Your task to perform on an android device: Empty the shopping cart on target.com. Add lenovo thinkpad to the cart on target.com, then select checkout. Image 0: 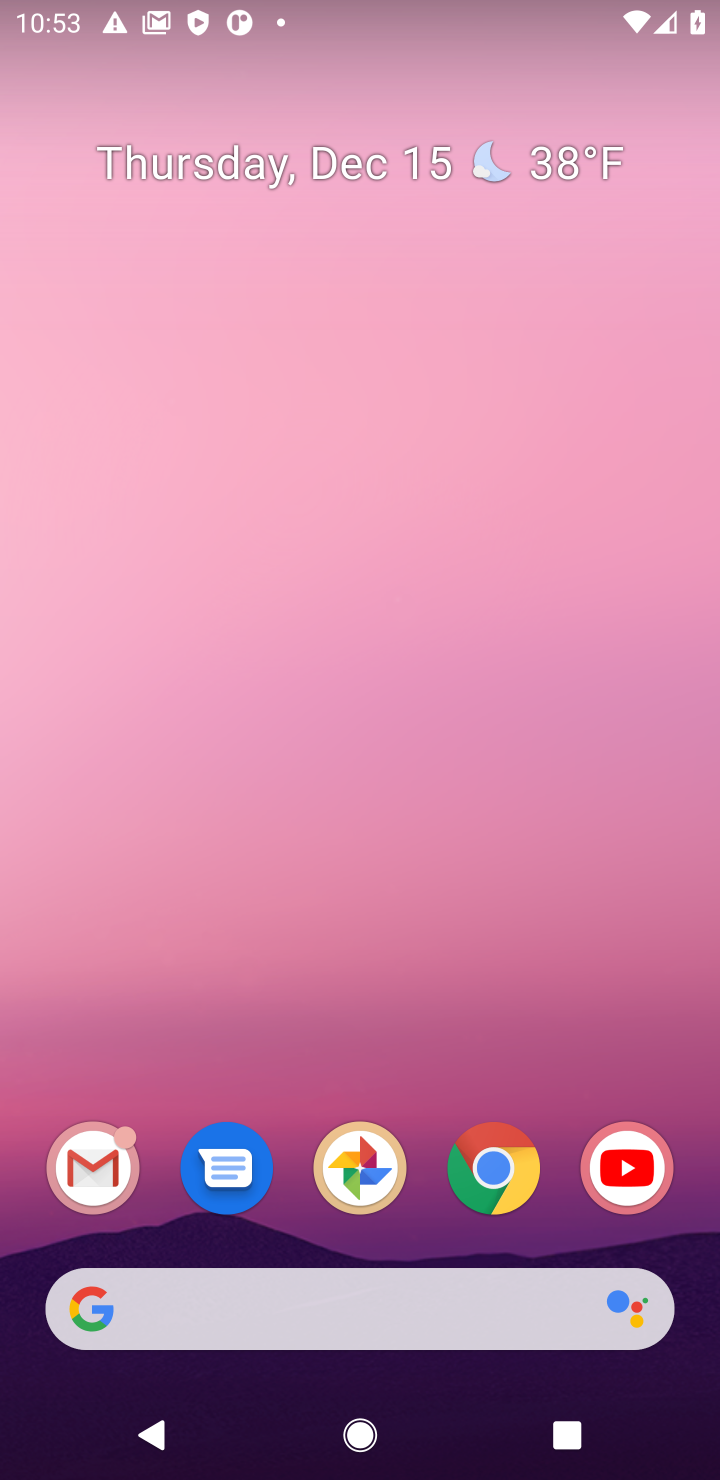
Step 0: click (484, 1175)
Your task to perform on an android device: Empty the shopping cart on target.com. Add lenovo thinkpad to the cart on target.com, then select checkout. Image 1: 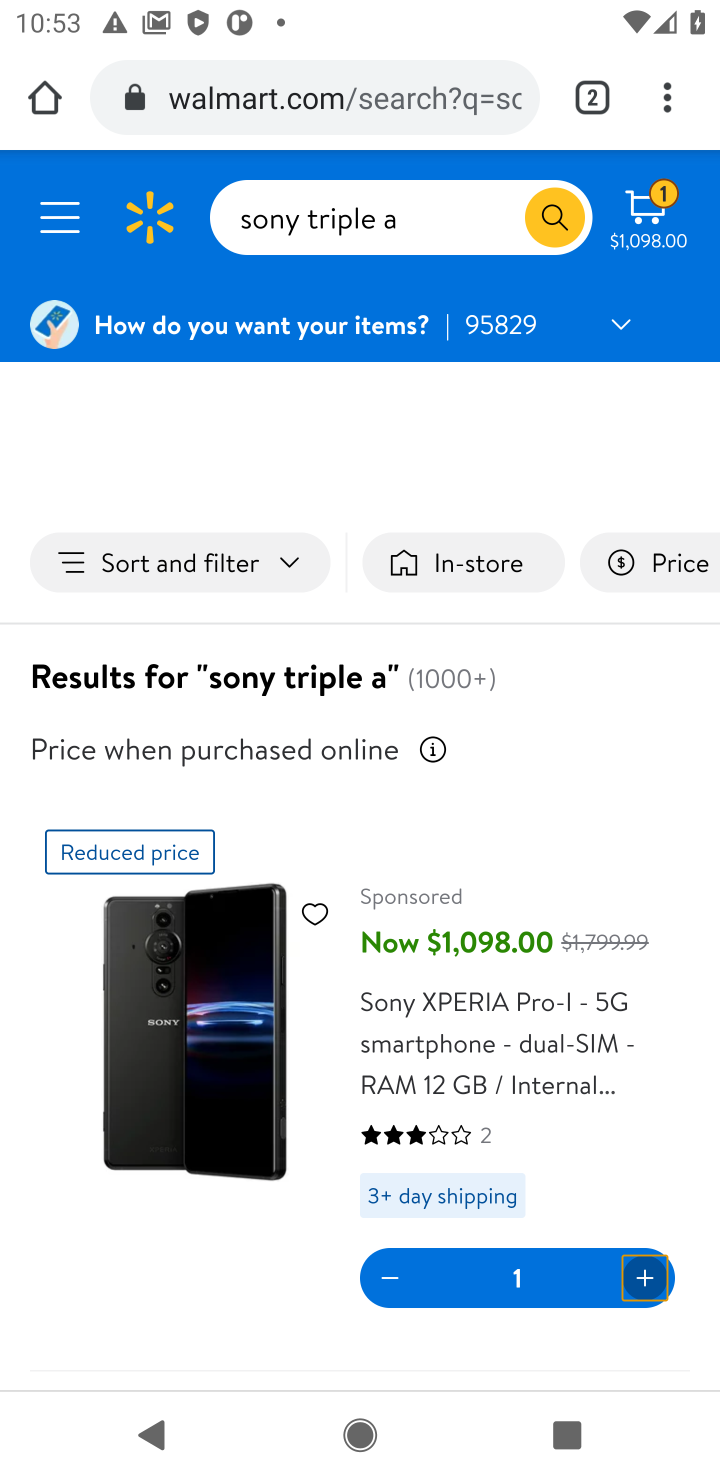
Step 1: click (364, 89)
Your task to perform on an android device: Empty the shopping cart on target.com. Add lenovo thinkpad to the cart on target.com, then select checkout. Image 2: 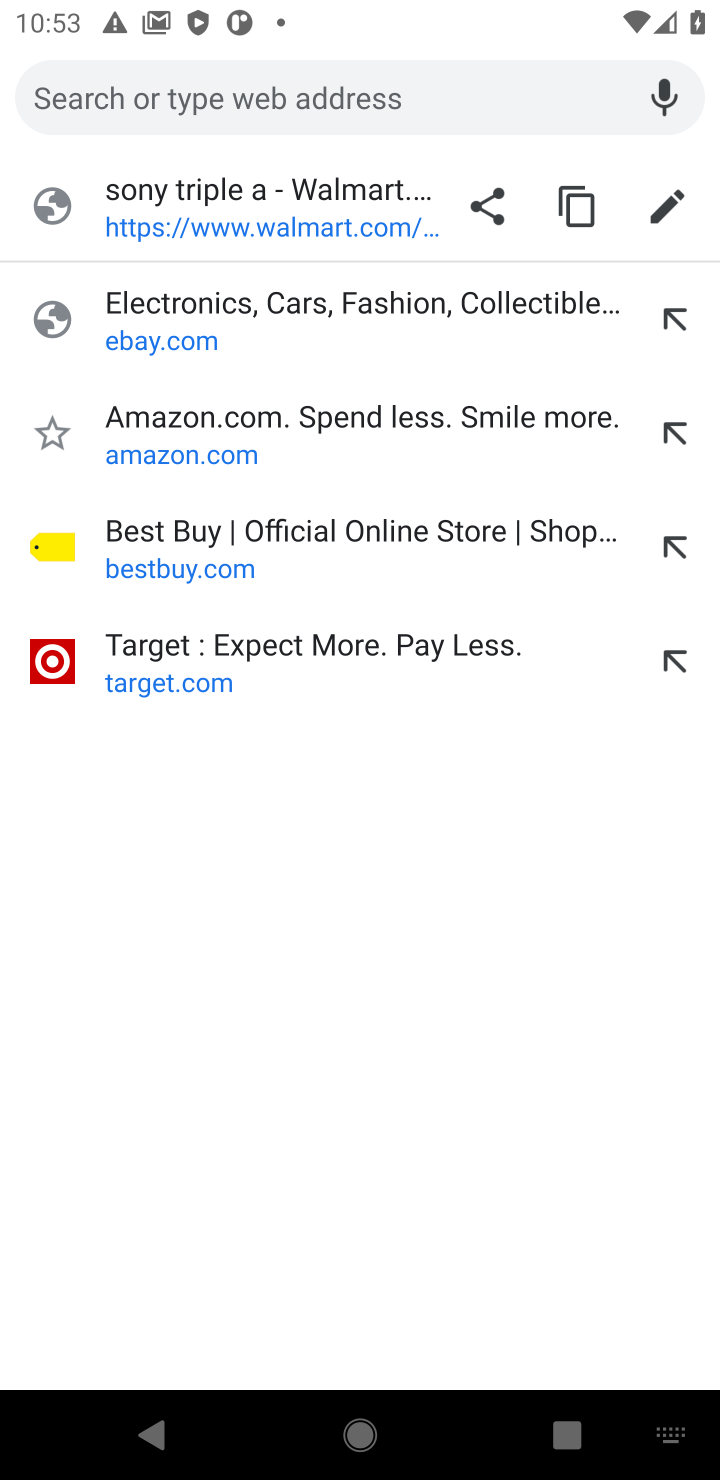
Step 2: click (237, 665)
Your task to perform on an android device: Empty the shopping cart on target.com. Add lenovo thinkpad to the cart on target.com, then select checkout. Image 3: 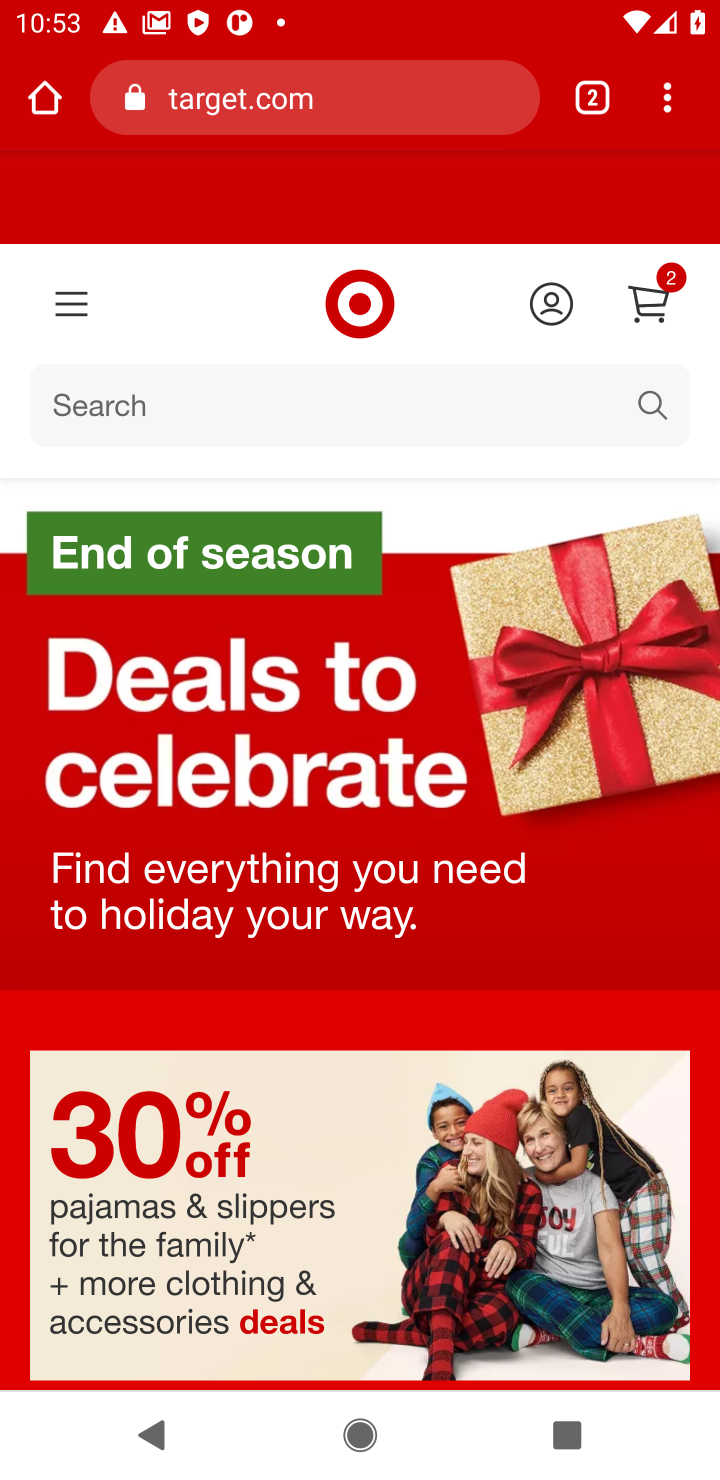
Step 3: click (445, 406)
Your task to perform on an android device: Empty the shopping cart on target.com. Add lenovo thinkpad to the cart on target.com, then select checkout. Image 4: 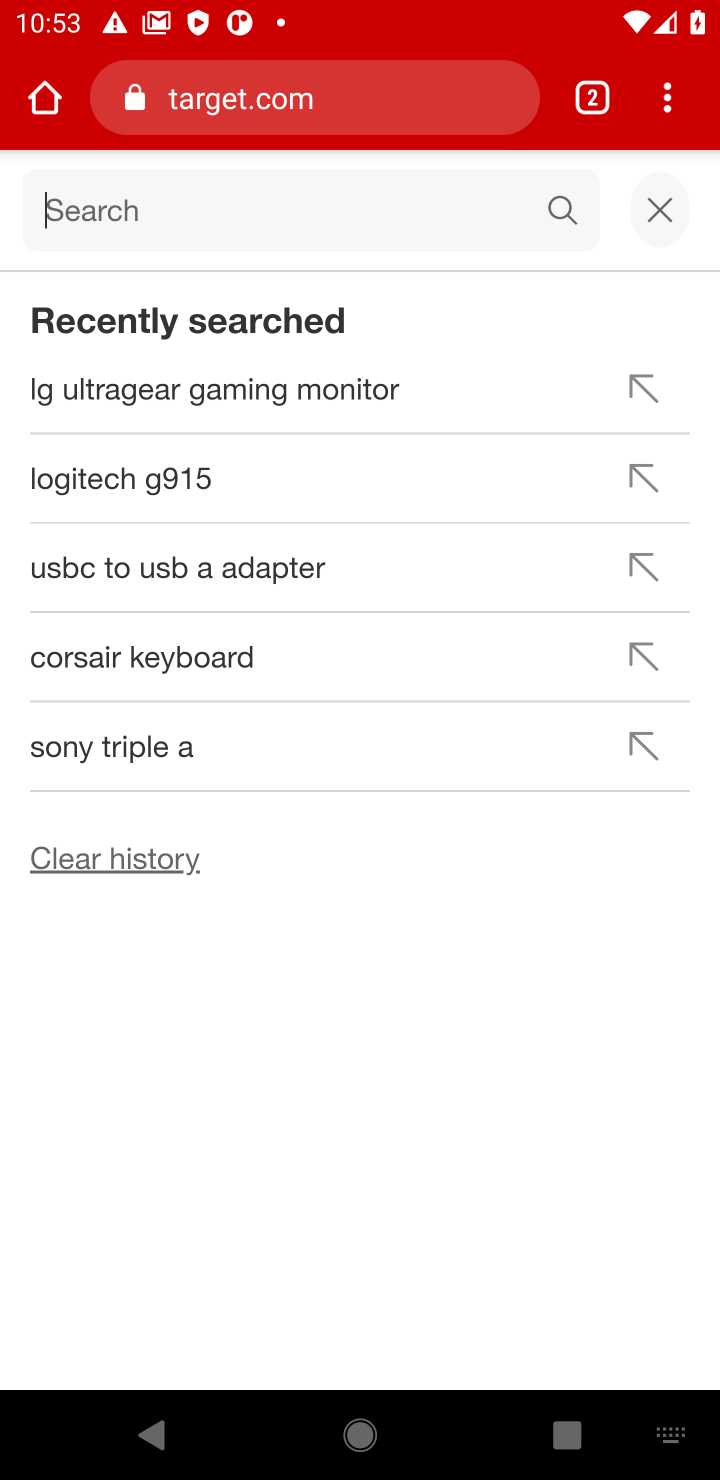
Step 4: click (656, 207)
Your task to perform on an android device: Empty the shopping cart on target.com. Add lenovo thinkpad to the cart on target.com, then select checkout. Image 5: 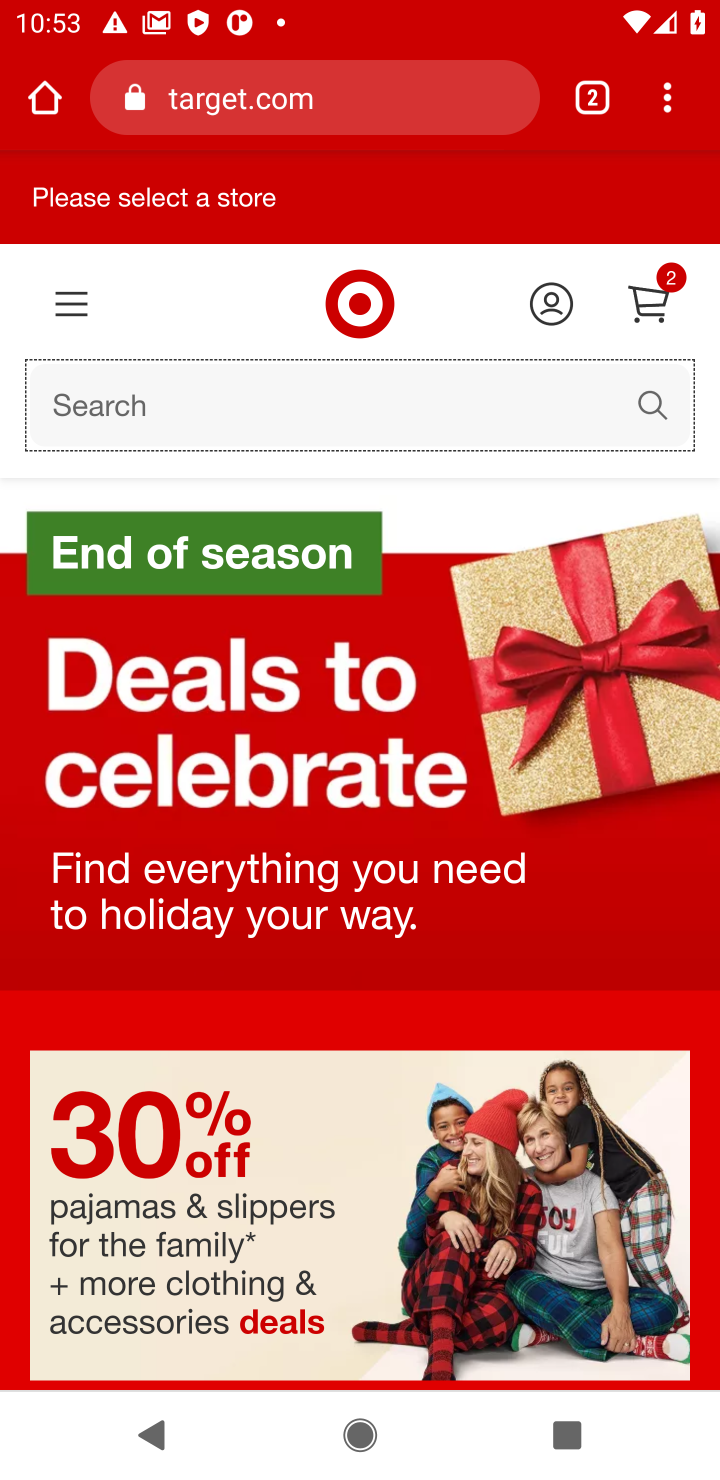
Step 5: click (645, 283)
Your task to perform on an android device: Empty the shopping cart on target.com. Add lenovo thinkpad to the cart on target.com, then select checkout. Image 6: 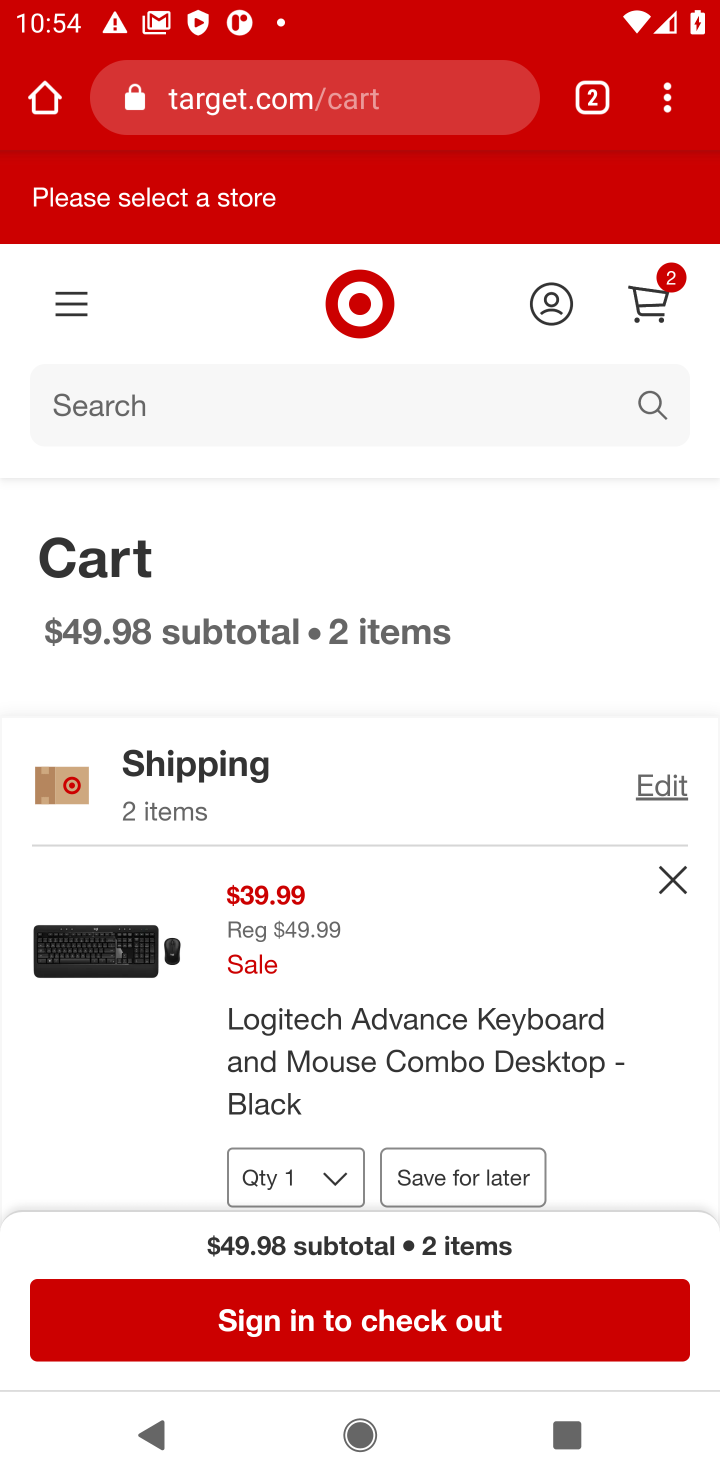
Step 6: click (675, 883)
Your task to perform on an android device: Empty the shopping cart on target.com. Add lenovo thinkpad to the cart on target.com, then select checkout. Image 7: 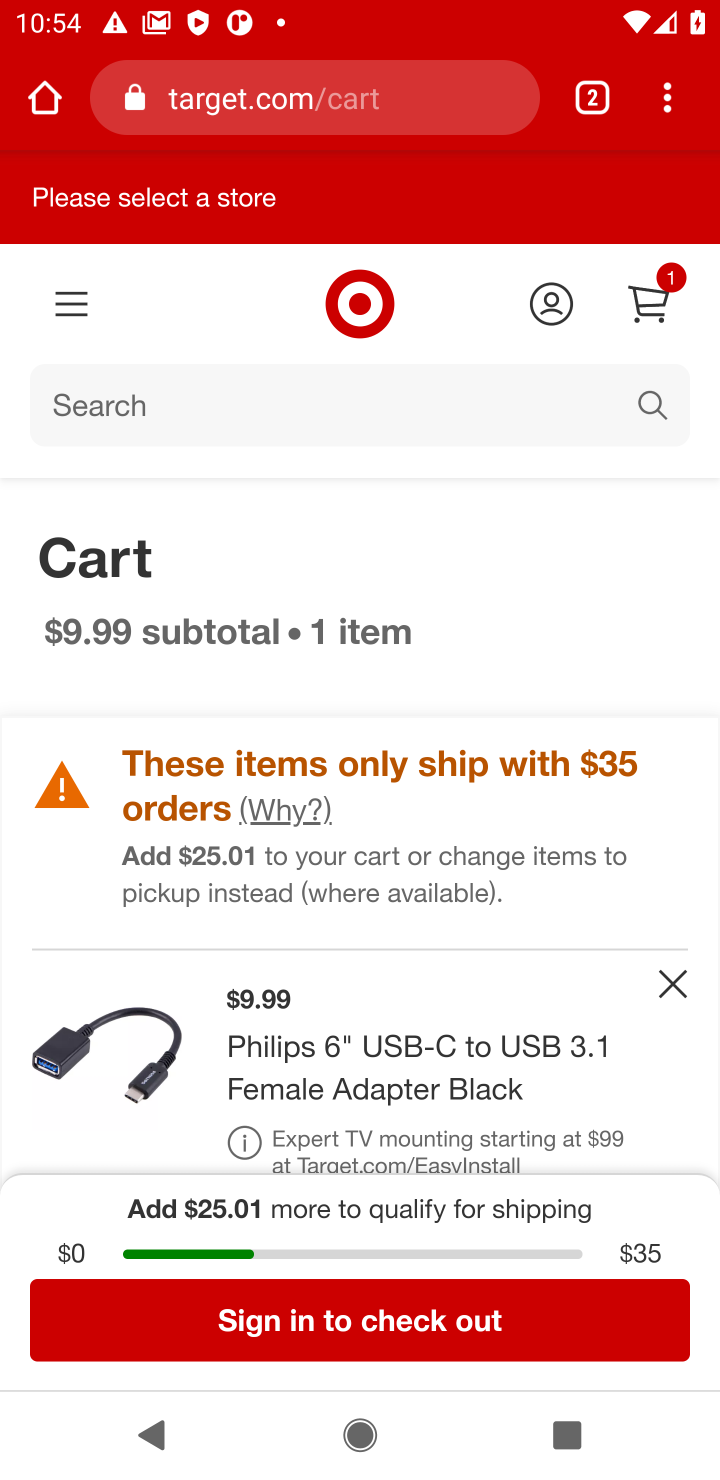
Step 7: click (670, 991)
Your task to perform on an android device: Empty the shopping cart on target.com. Add lenovo thinkpad to the cart on target.com, then select checkout. Image 8: 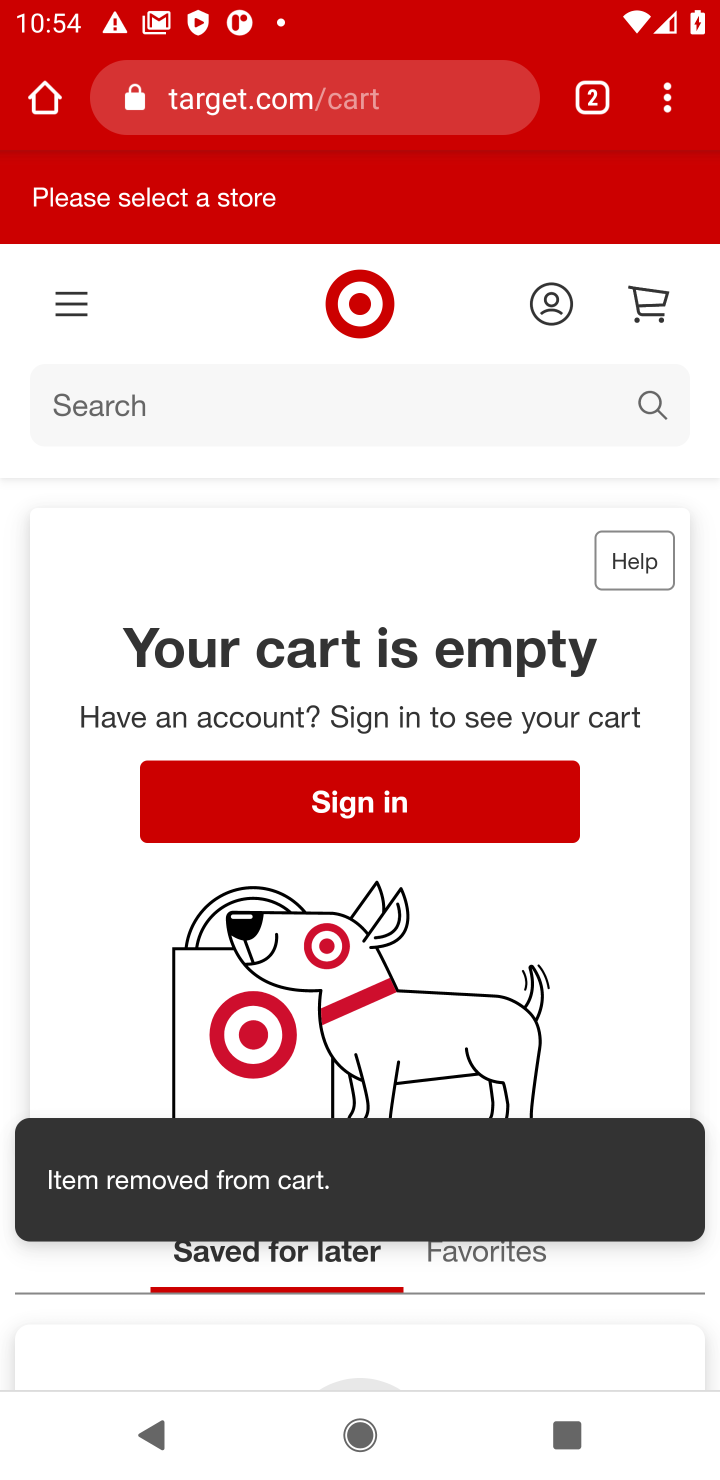
Step 8: click (341, 397)
Your task to perform on an android device: Empty the shopping cart on target.com. Add lenovo thinkpad to the cart on target.com, then select checkout. Image 9: 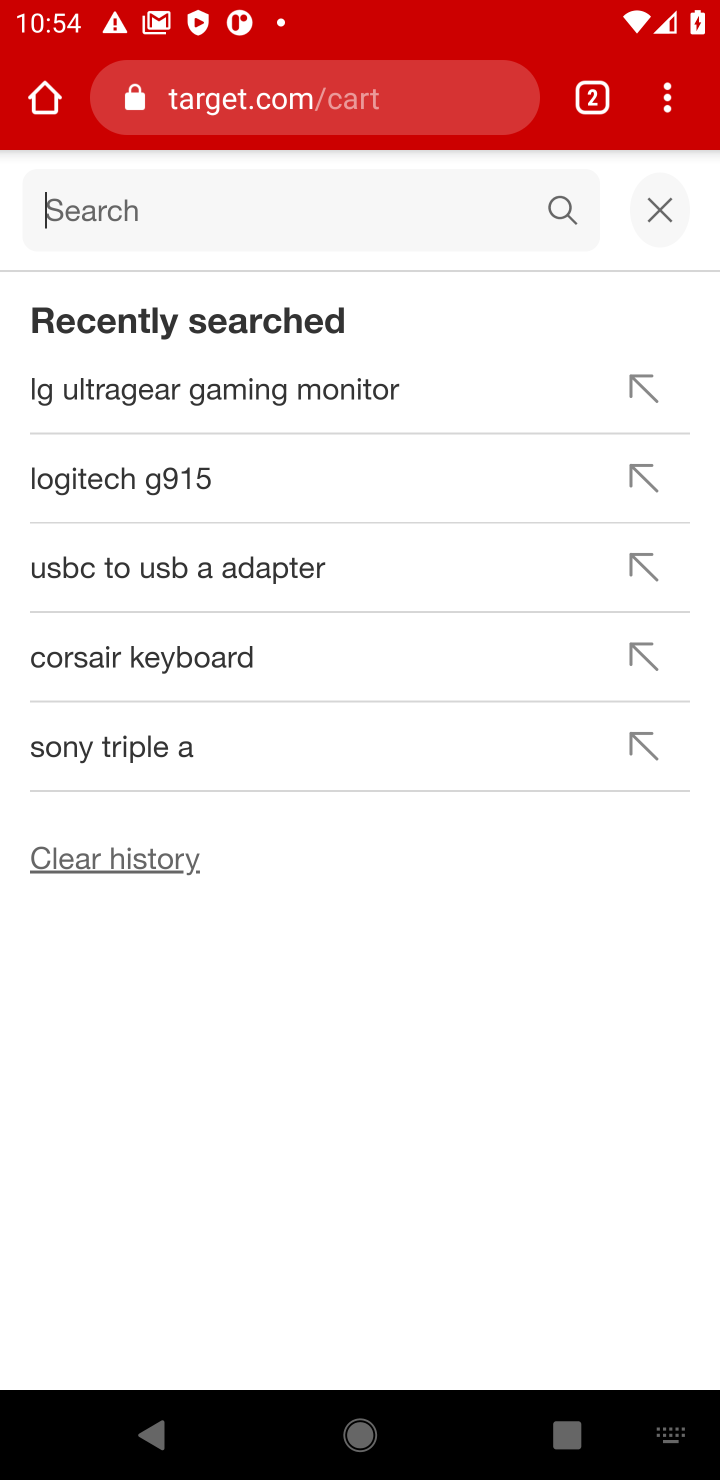
Step 9: type "lenovo thinkpad"
Your task to perform on an android device: Empty the shopping cart on target.com. Add lenovo thinkpad to the cart on target.com, then select checkout. Image 10: 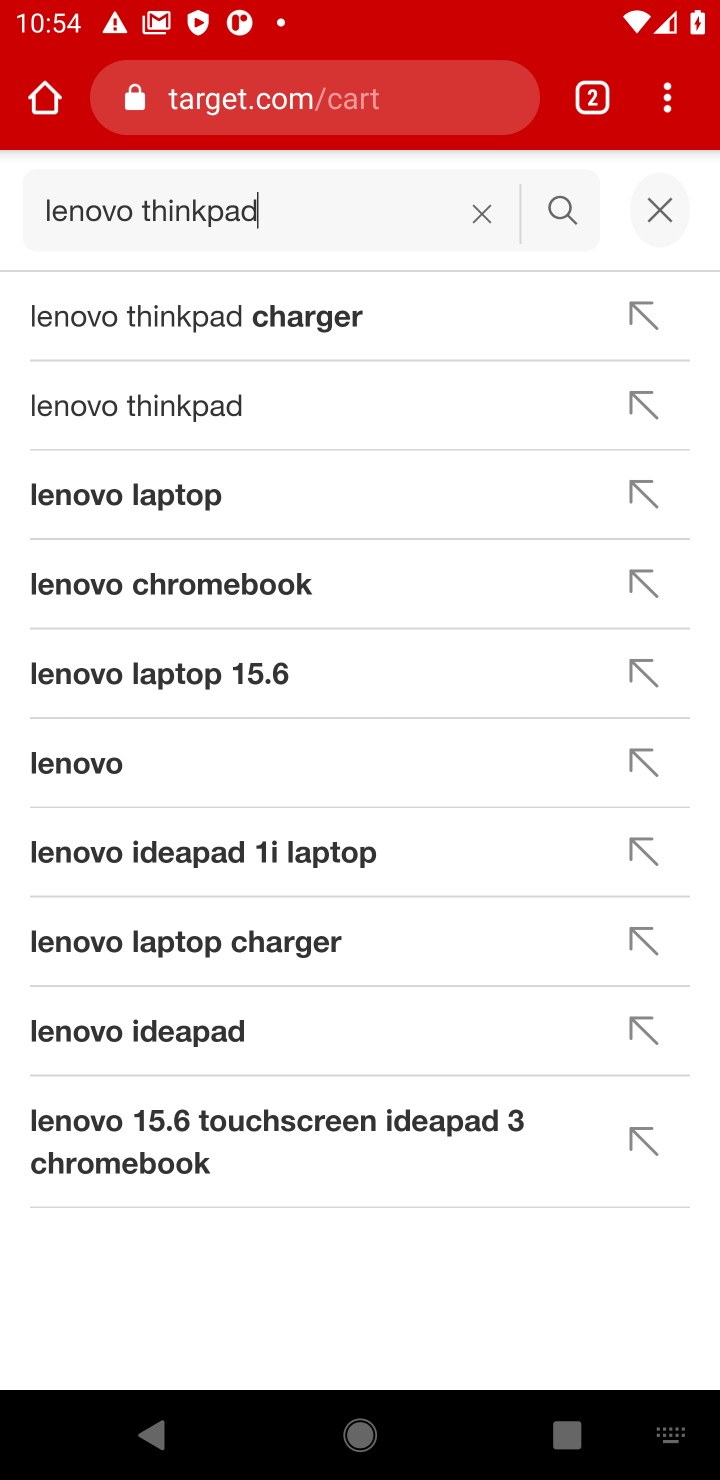
Step 10: click (217, 326)
Your task to perform on an android device: Empty the shopping cart on target.com. Add lenovo thinkpad to the cart on target.com, then select checkout. Image 11: 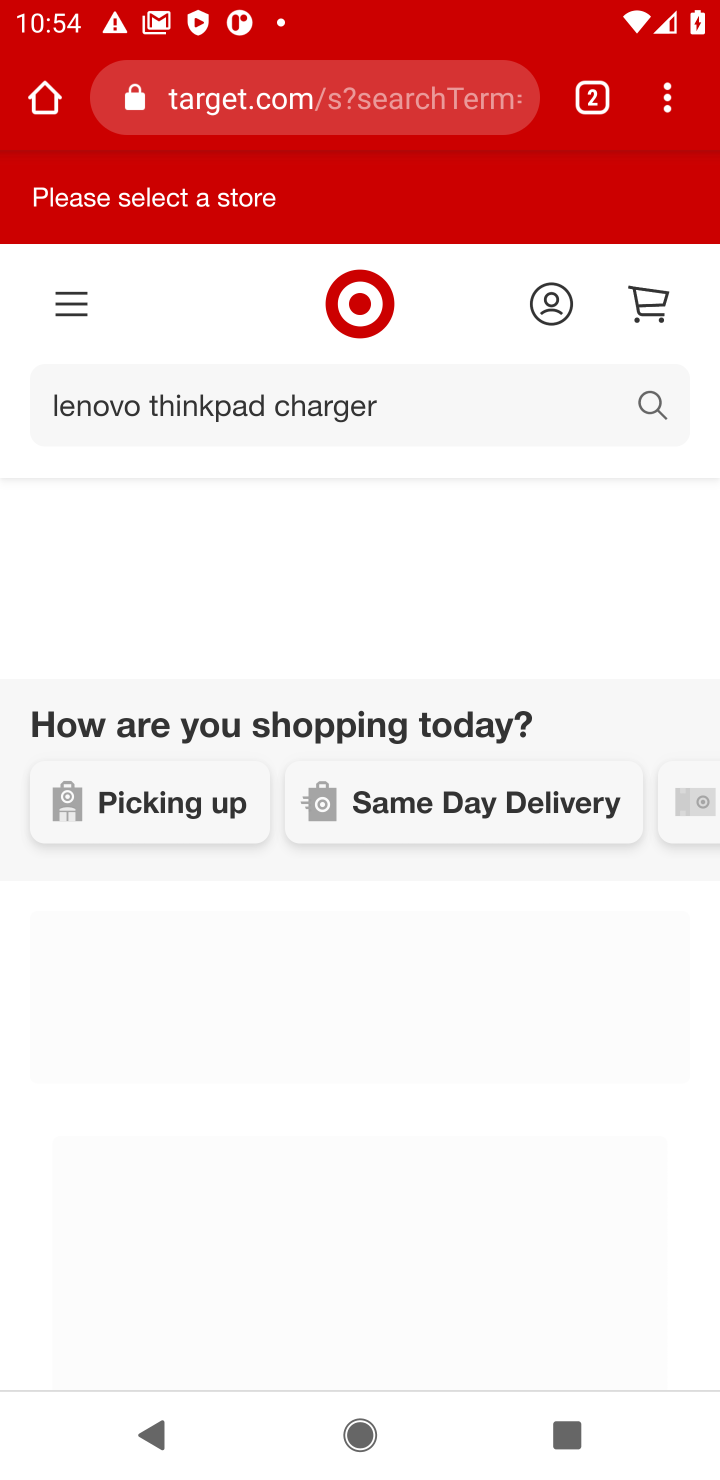
Step 11: click (648, 402)
Your task to perform on an android device: Empty the shopping cart on target.com. Add lenovo thinkpad to the cart on target.com, then select checkout. Image 12: 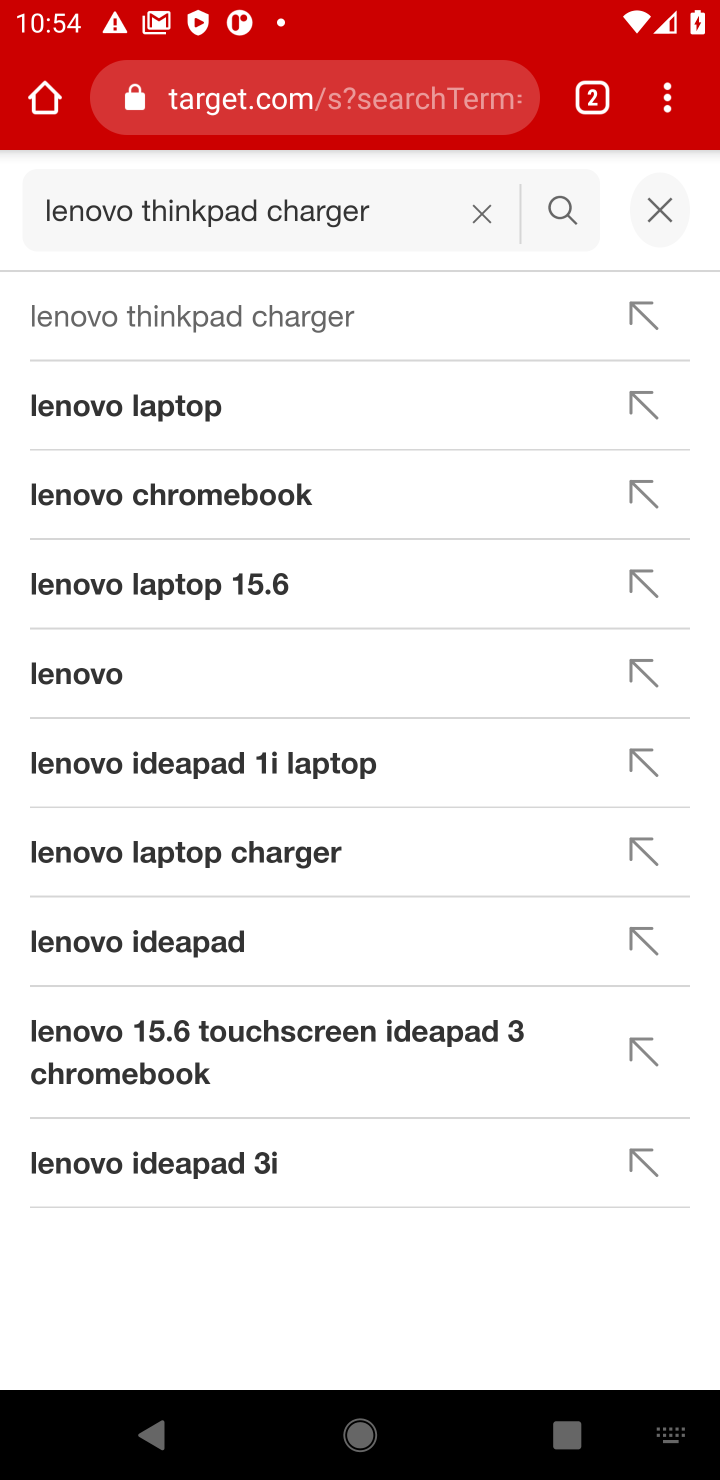
Step 12: click (191, 326)
Your task to perform on an android device: Empty the shopping cart on target.com. Add lenovo thinkpad to the cart on target.com, then select checkout. Image 13: 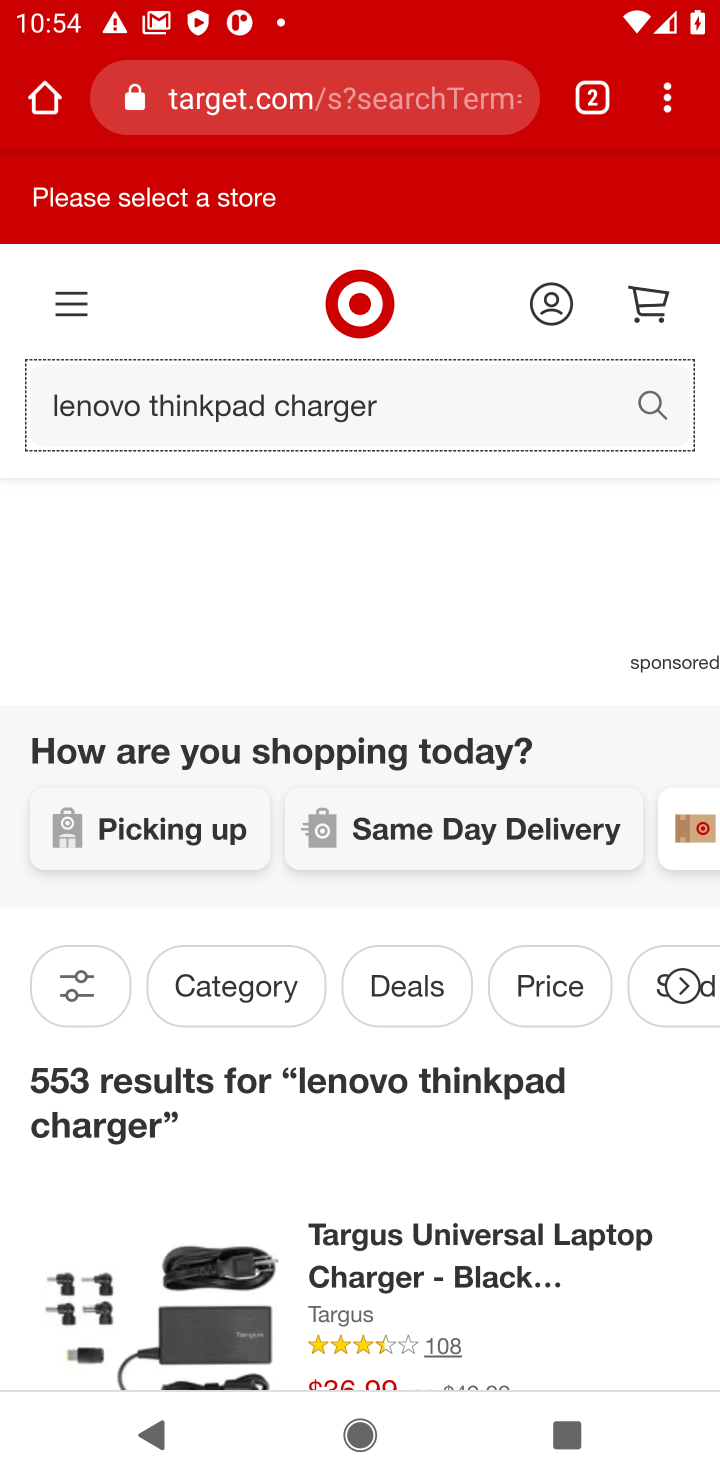
Step 13: click (493, 1248)
Your task to perform on an android device: Empty the shopping cart on target.com. Add lenovo thinkpad to the cart on target.com, then select checkout. Image 14: 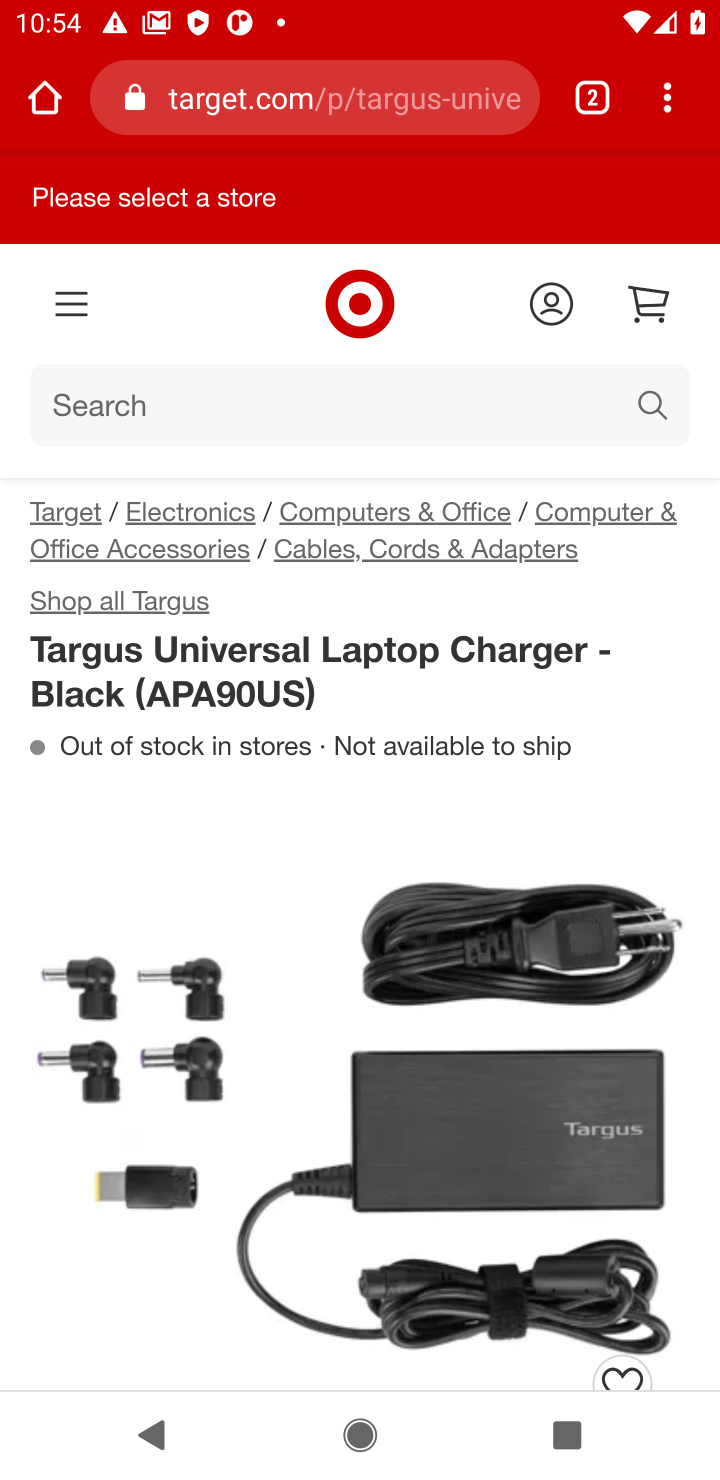
Step 14: drag from (350, 1098) to (397, 408)
Your task to perform on an android device: Empty the shopping cart on target.com. Add lenovo thinkpad to the cart on target.com, then select checkout. Image 15: 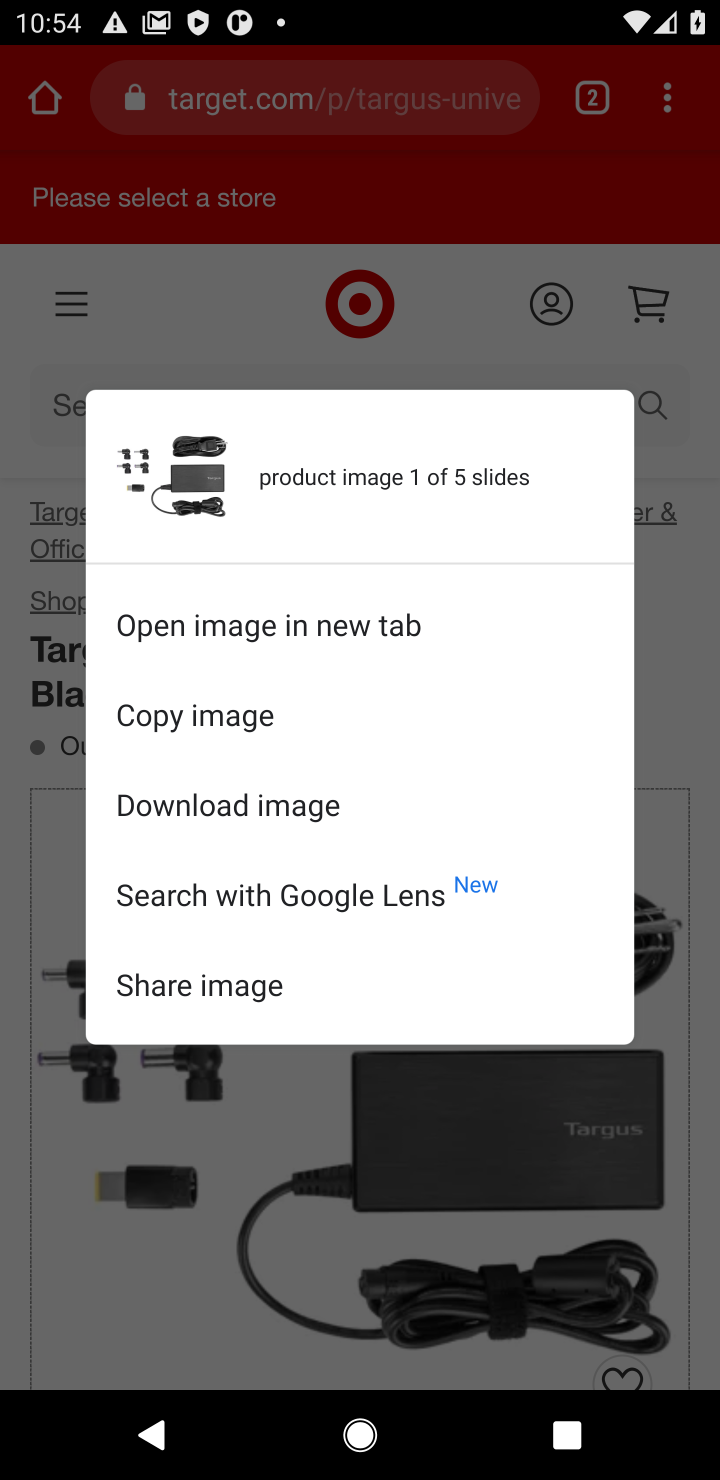
Step 15: click (670, 641)
Your task to perform on an android device: Empty the shopping cart on target.com. Add lenovo thinkpad to the cart on target.com, then select checkout. Image 16: 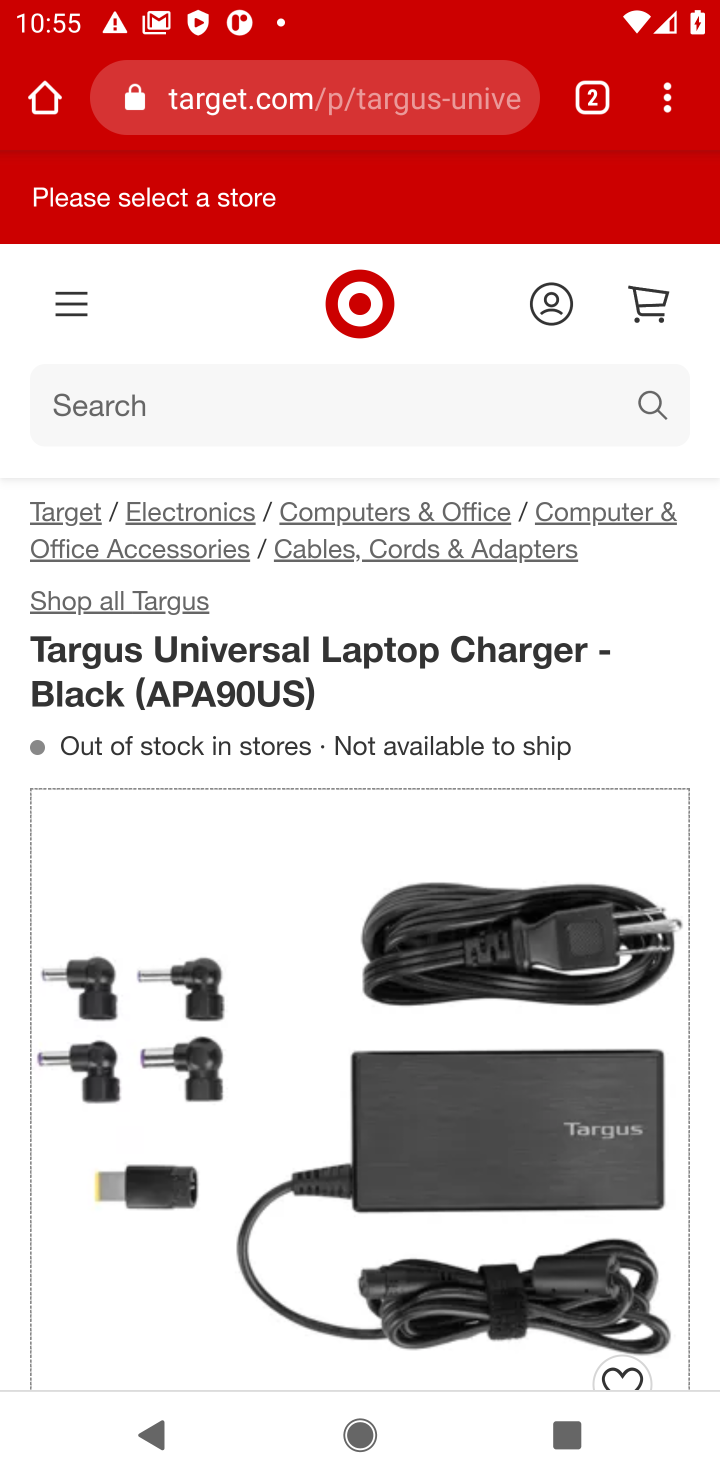
Step 16: drag from (571, 1013) to (480, 172)
Your task to perform on an android device: Empty the shopping cart on target.com. Add lenovo thinkpad to the cart on target.com, then select checkout. Image 17: 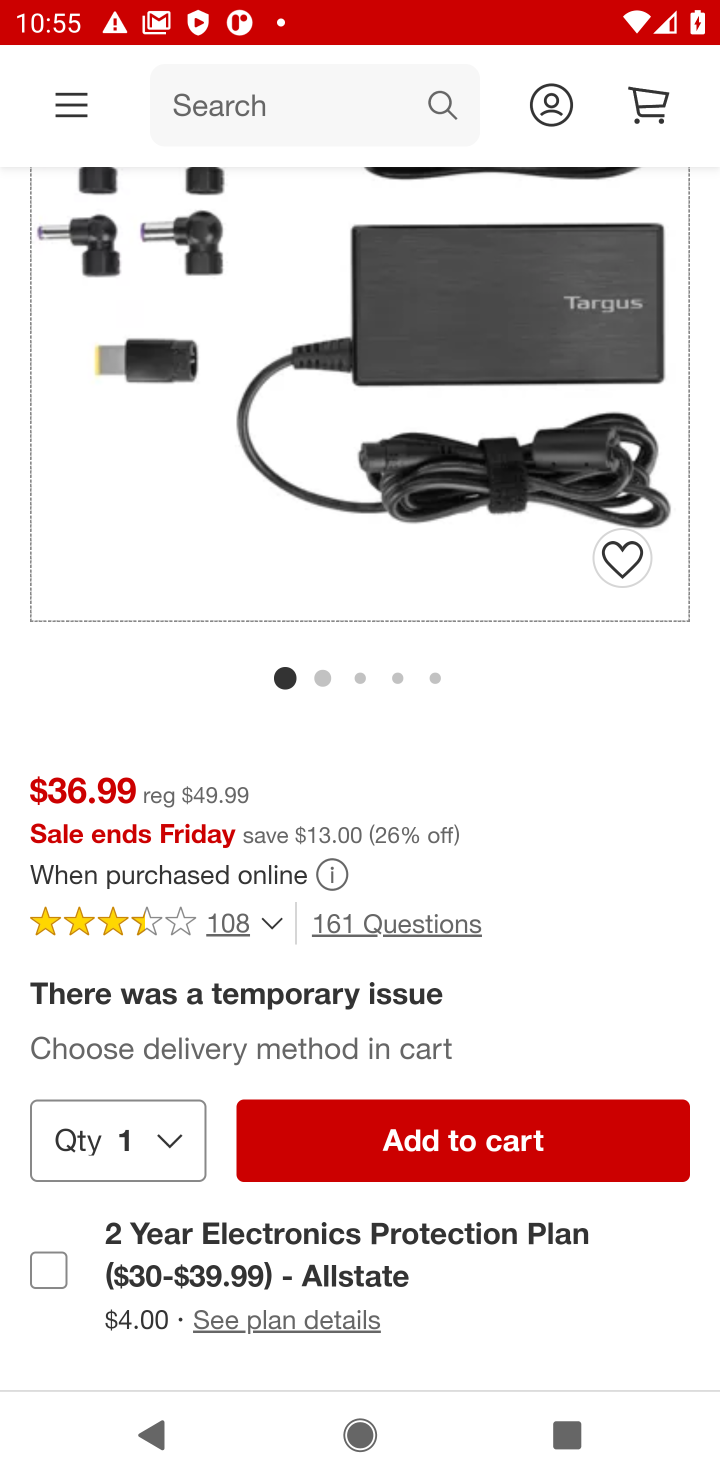
Step 17: click (483, 1160)
Your task to perform on an android device: Empty the shopping cart on target.com. Add lenovo thinkpad to the cart on target.com, then select checkout. Image 18: 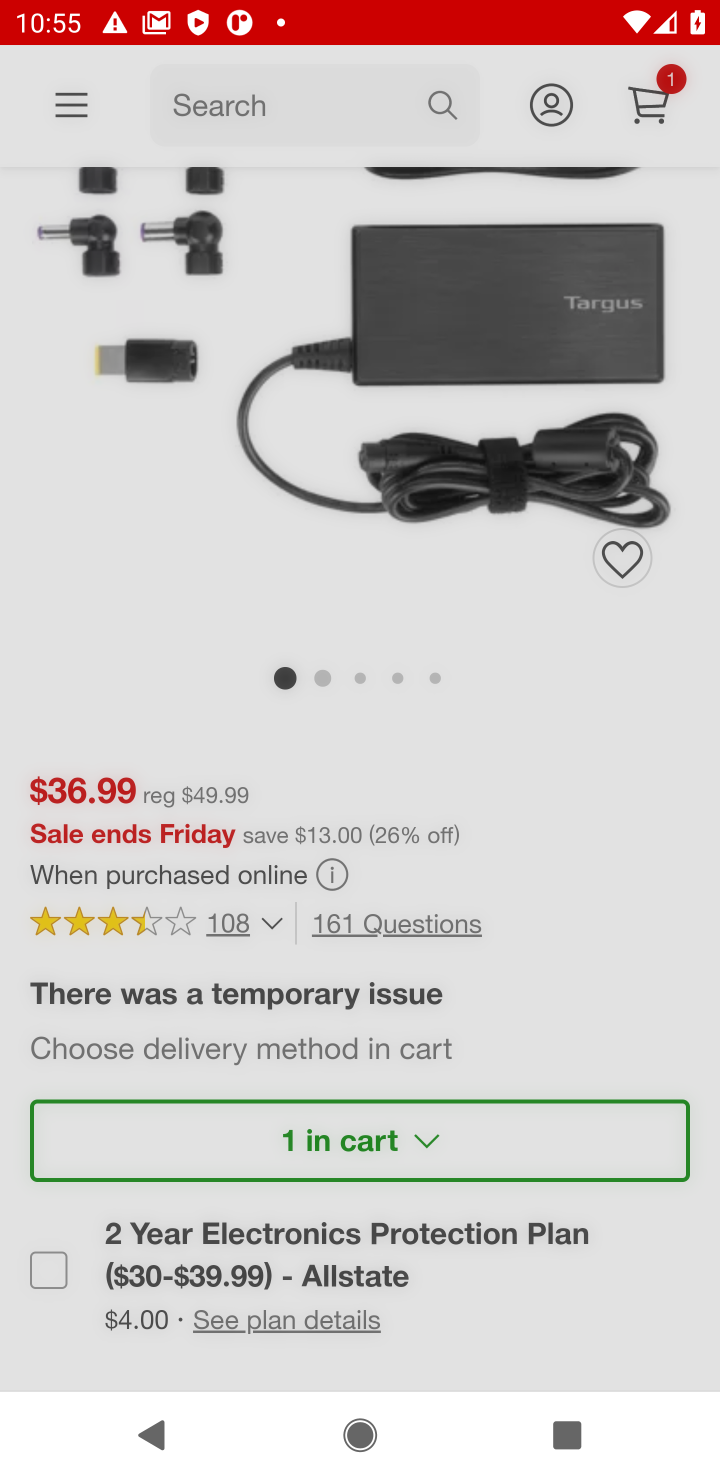
Step 18: click (655, 101)
Your task to perform on an android device: Empty the shopping cart on target.com. Add lenovo thinkpad to the cart on target.com, then select checkout. Image 19: 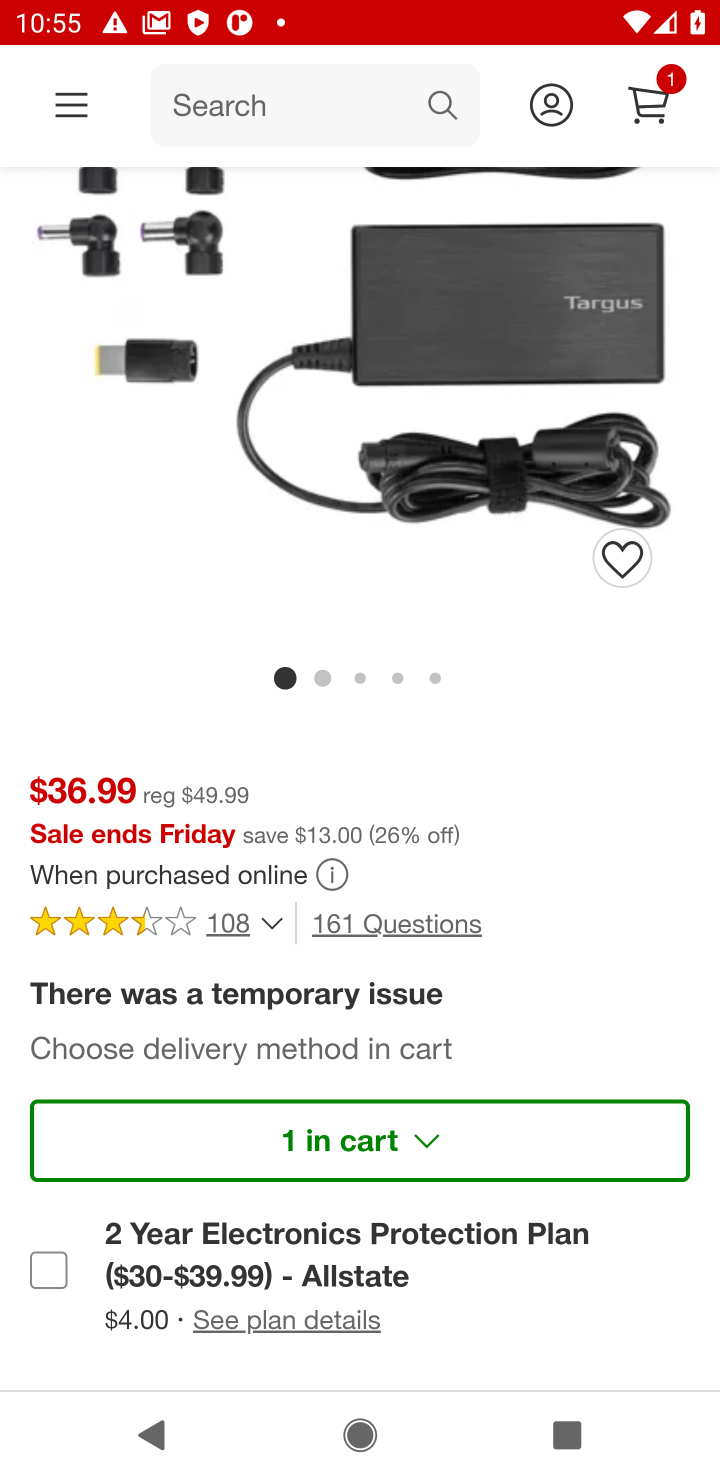
Step 19: click (646, 87)
Your task to perform on an android device: Empty the shopping cart on target.com. Add lenovo thinkpad to the cart on target.com, then select checkout. Image 20: 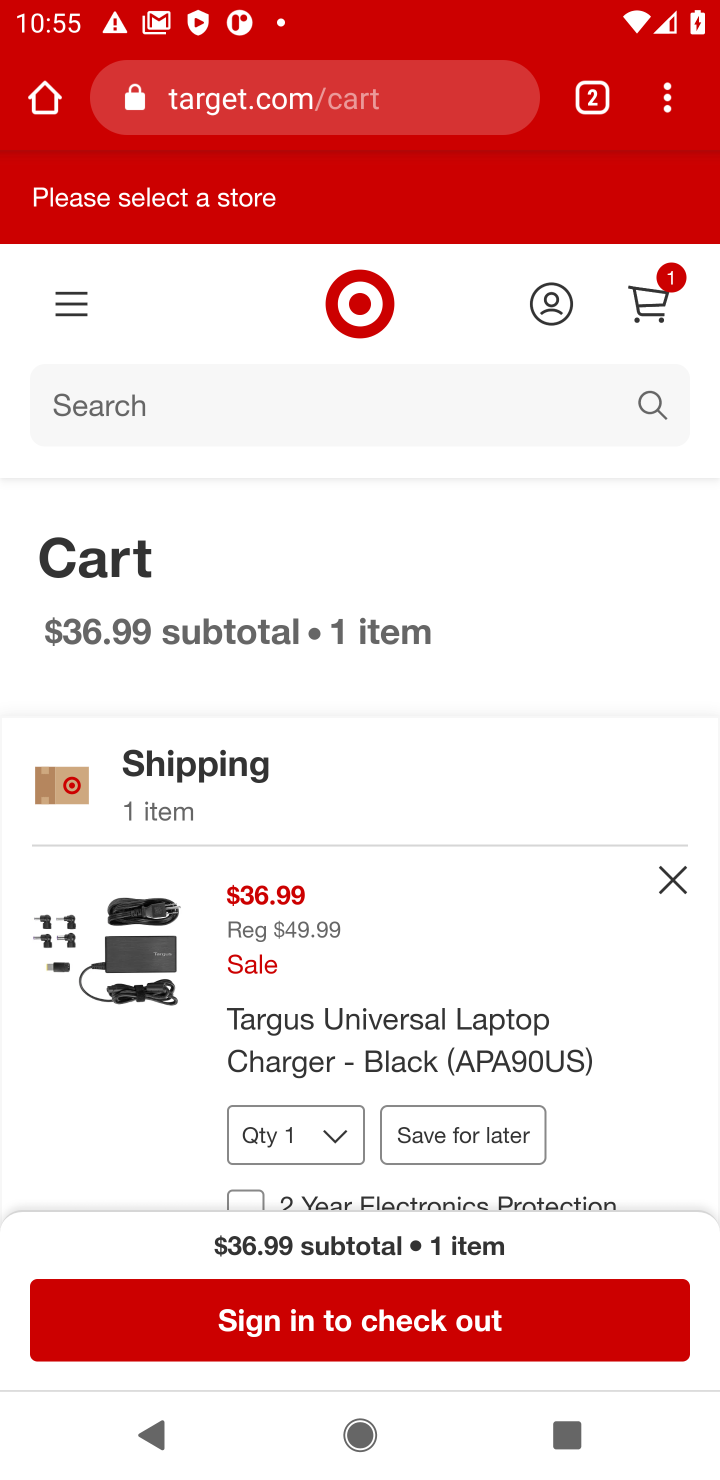
Step 20: click (387, 1326)
Your task to perform on an android device: Empty the shopping cart on target.com. Add lenovo thinkpad to the cart on target.com, then select checkout. Image 21: 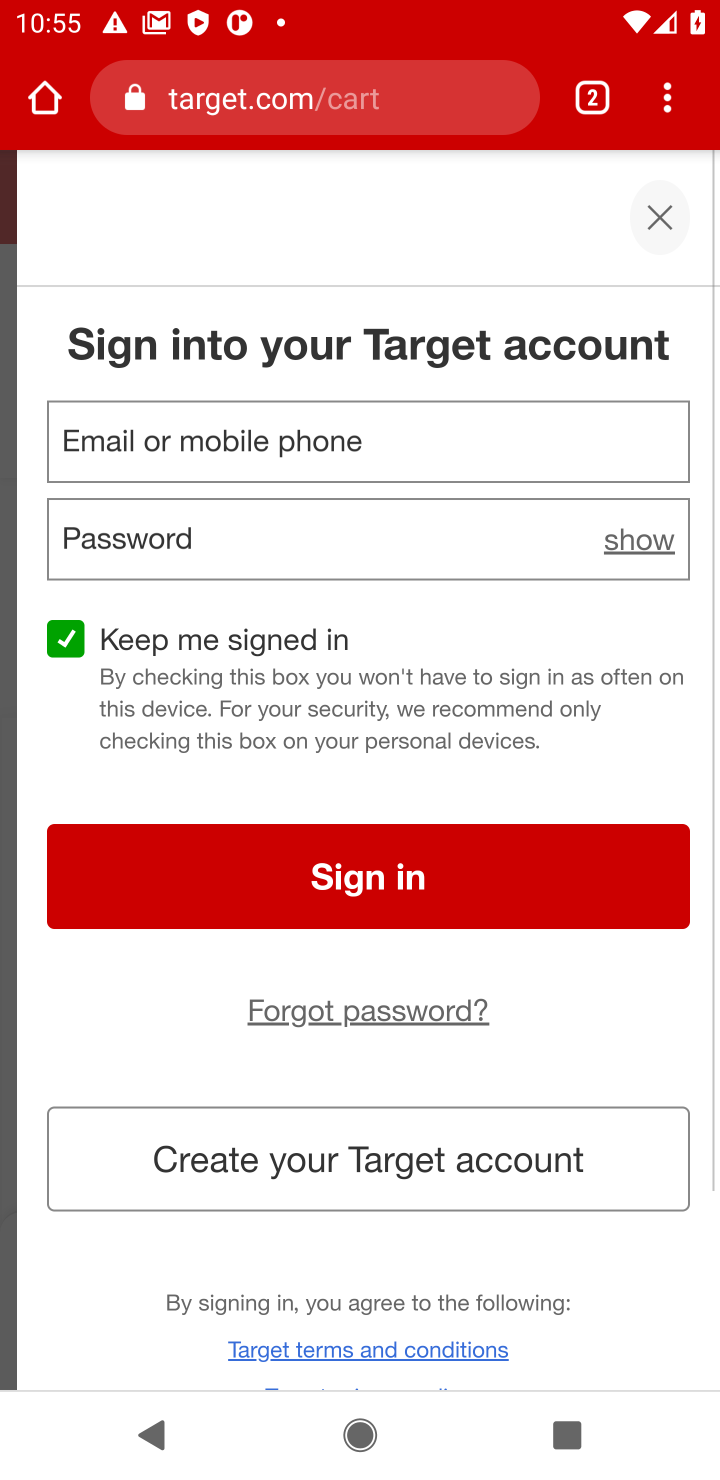
Step 21: task complete